Your task to perform on an android device: change the clock style Image 0: 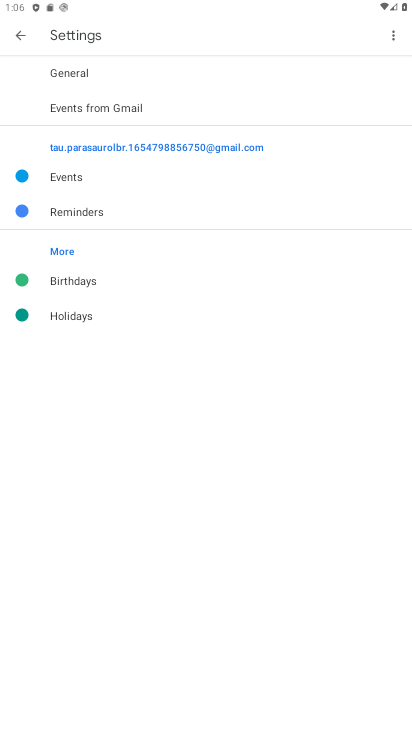
Step 0: press home button
Your task to perform on an android device: change the clock style Image 1: 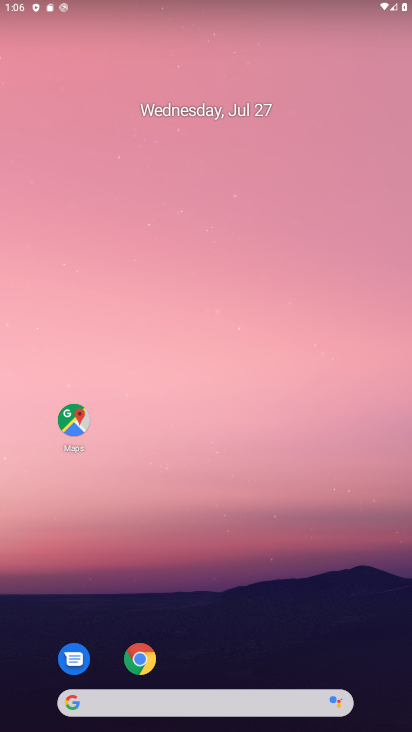
Step 1: drag from (292, 573) to (229, 6)
Your task to perform on an android device: change the clock style Image 2: 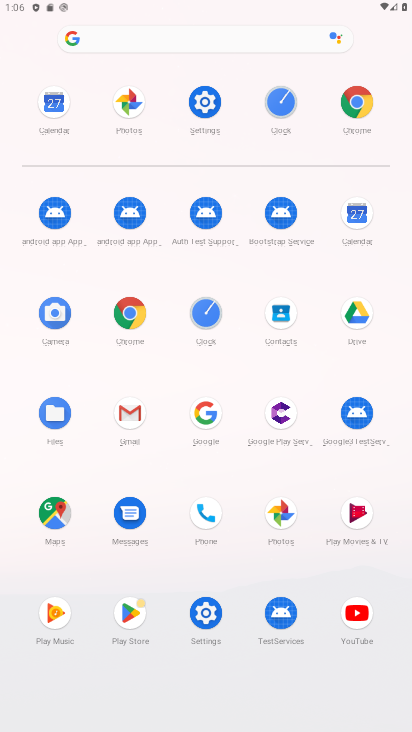
Step 2: click (291, 109)
Your task to perform on an android device: change the clock style Image 3: 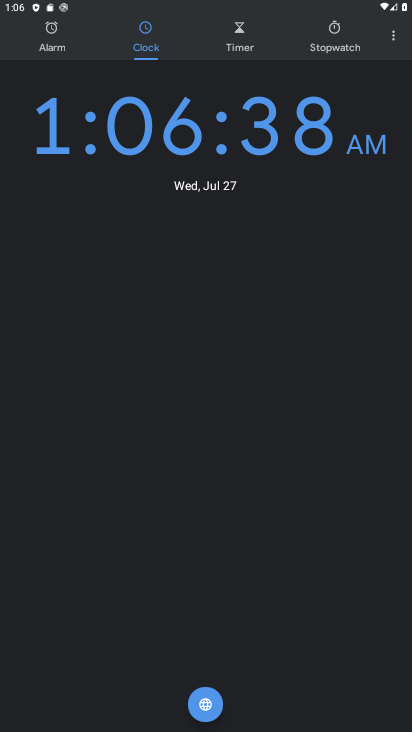
Step 3: click (395, 37)
Your task to perform on an android device: change the clock style Image 4: 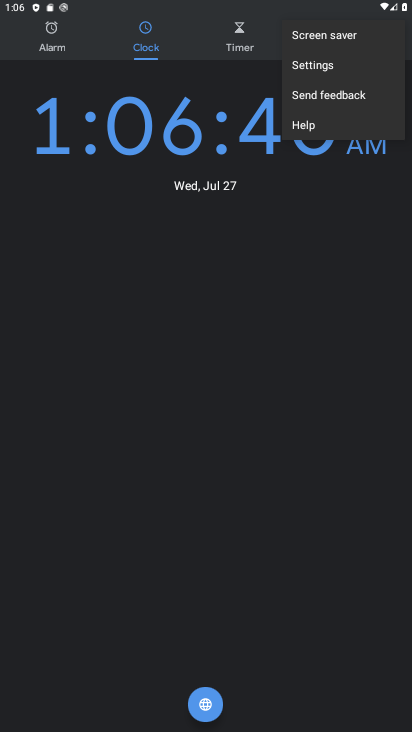
Step 4: click (301, 67)
Your task to perform on an android device: change the clock style Image 5: 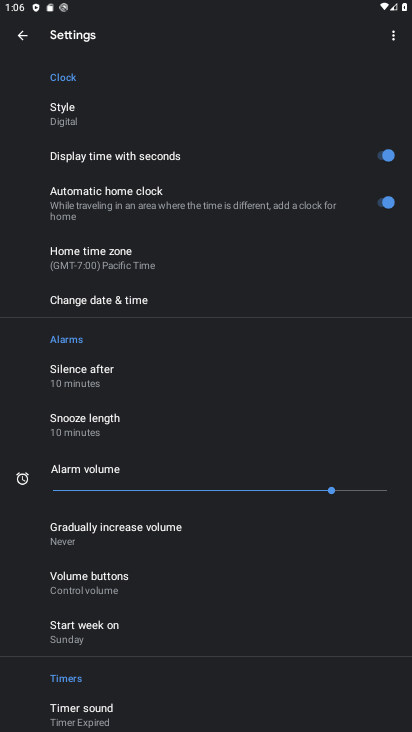
Step 5: click (72, 108)
Your task to perform on an android device: change the clock style Image 6: 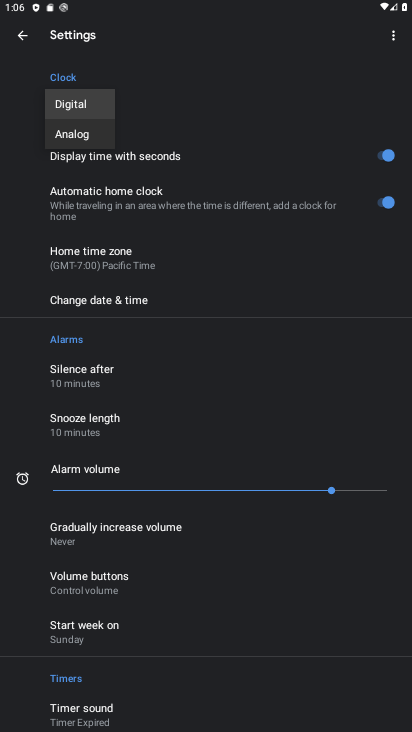
Step 6: click (70, 130)
Your task to perform on an android device: change the clock style Image 7: 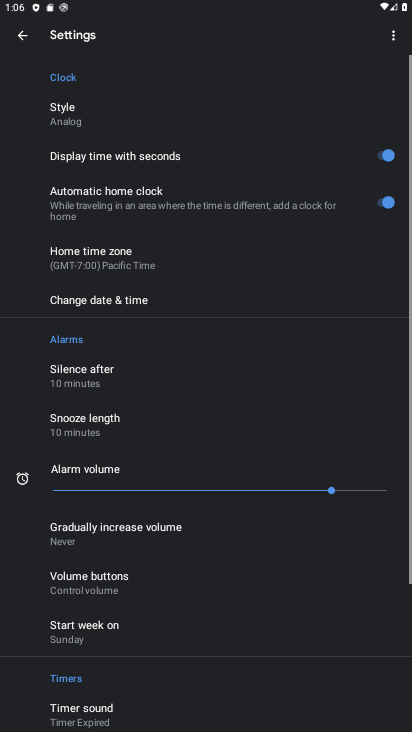
Step 7: task complete